Your task to perform on an android device: turn notification dots off Image 0: 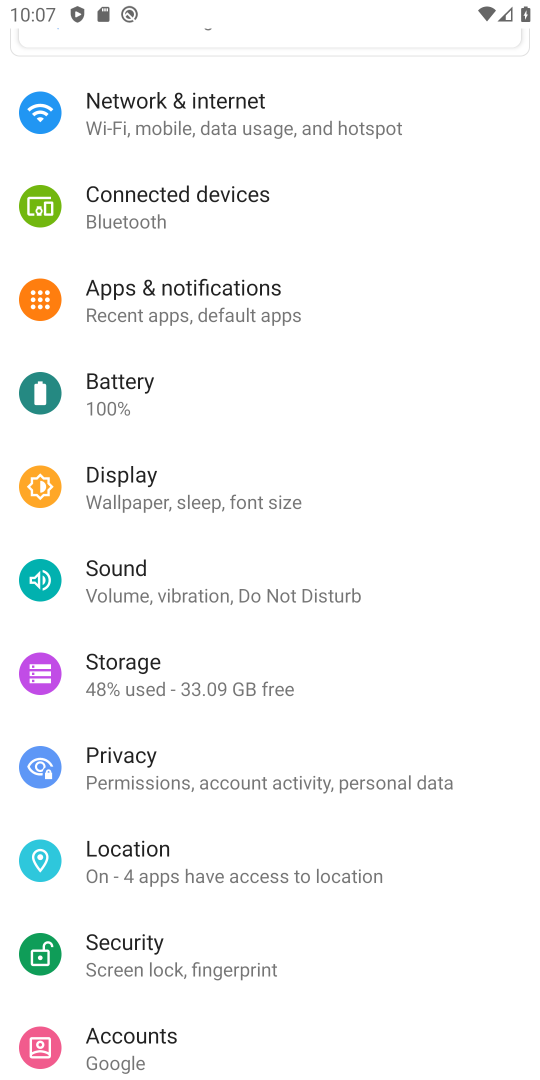
Step 0: drag from (273, 296) to (276, 726)
Your task to perform on an android device: turn notification dots off Image 1: 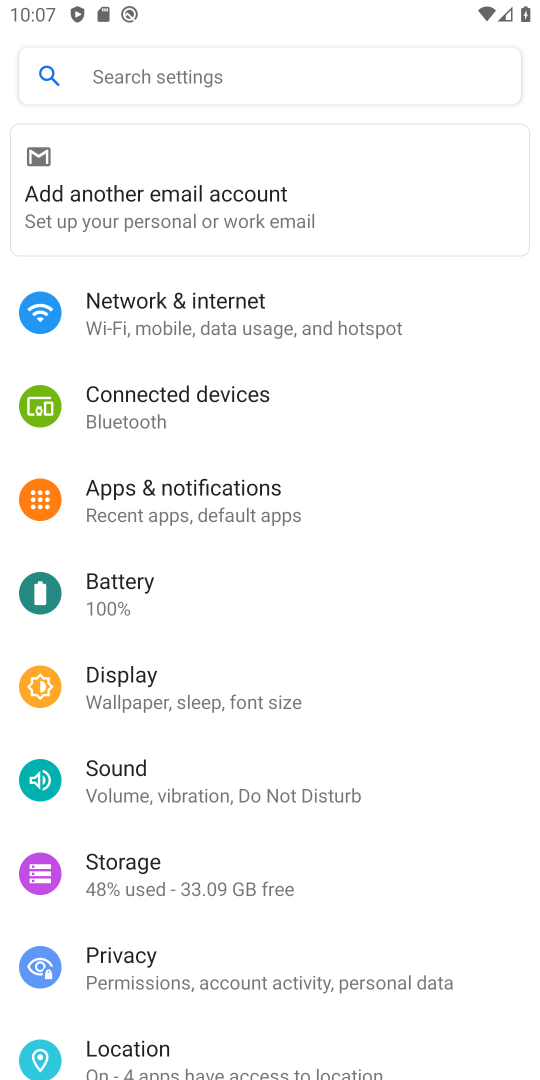
Step 1: click (189, 58)
Your task to perform on an android device: turn notification dots off Image 2: 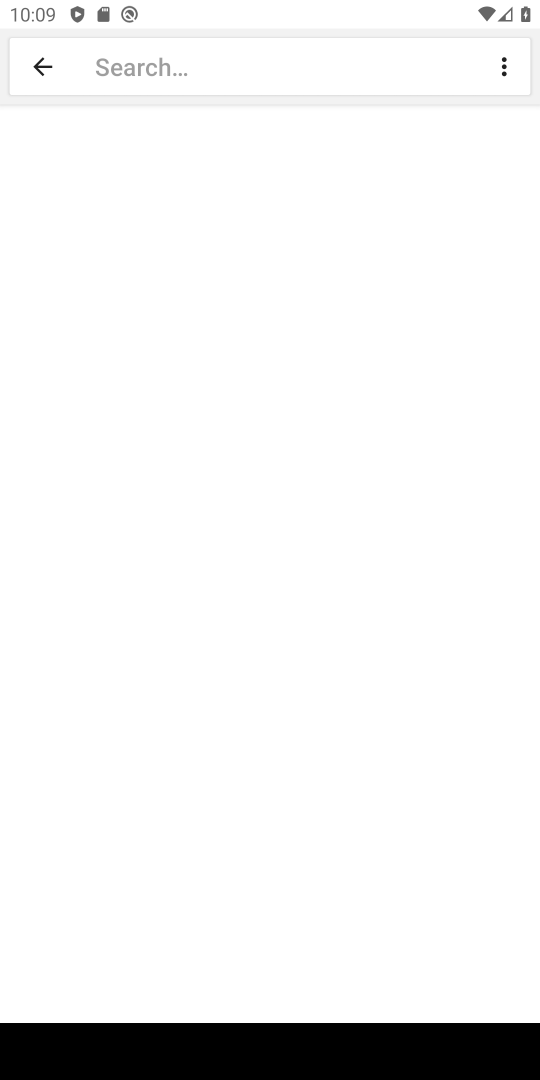
Step 2: click (213, 59)
Your task to perform on an android device: turn notification dots off Image 3: 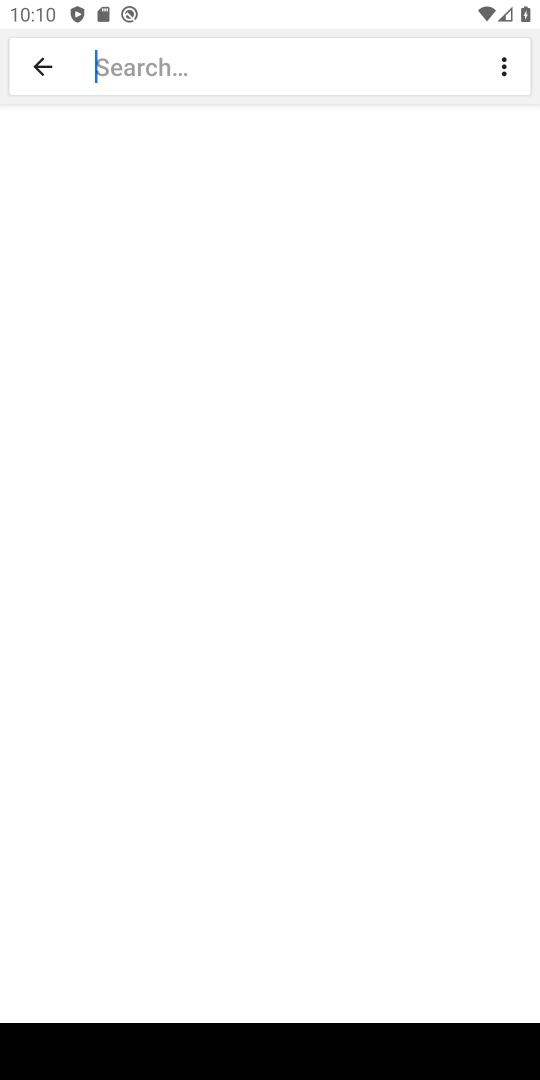
Step 3: type "notification dots  "
Your task to perform on an android device: turn notification dots off Image 4: 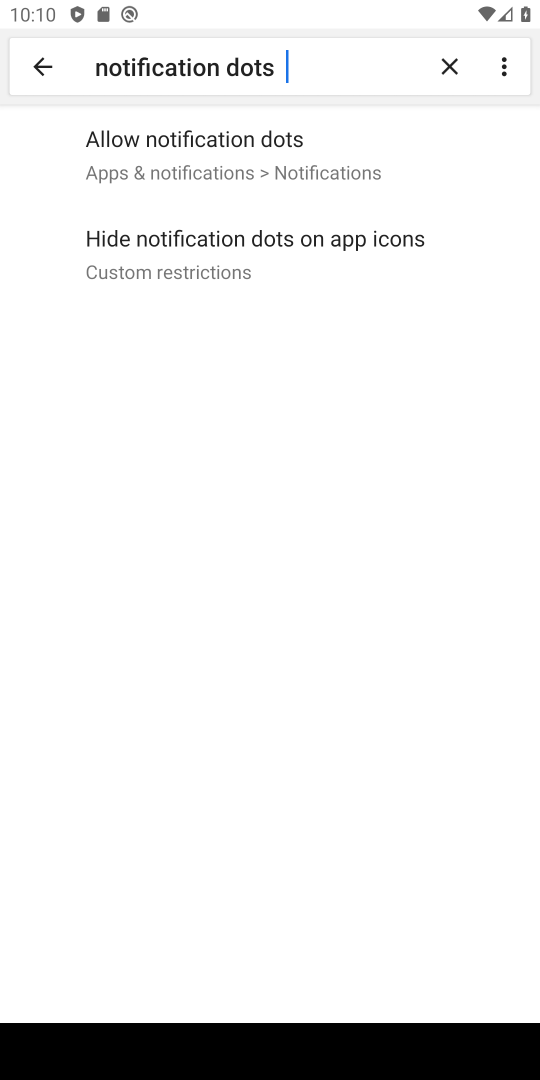
Step 4: click (195, 153)
Your task to perform on an android device: turn notification dots off Image 5: 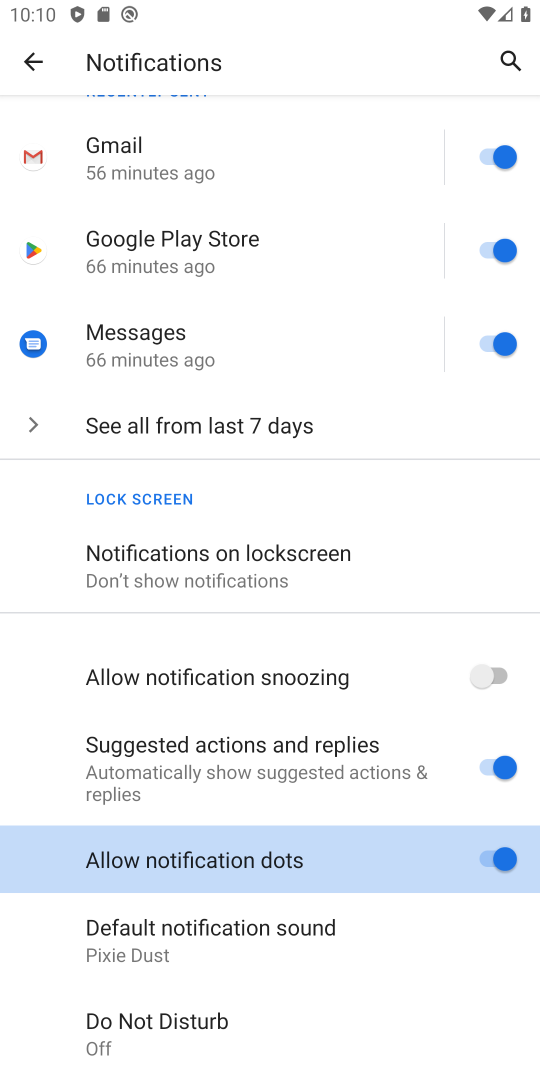
Step 5: click (502, 843)
Your task to perform on an android device: turn notification dots off Image 6: 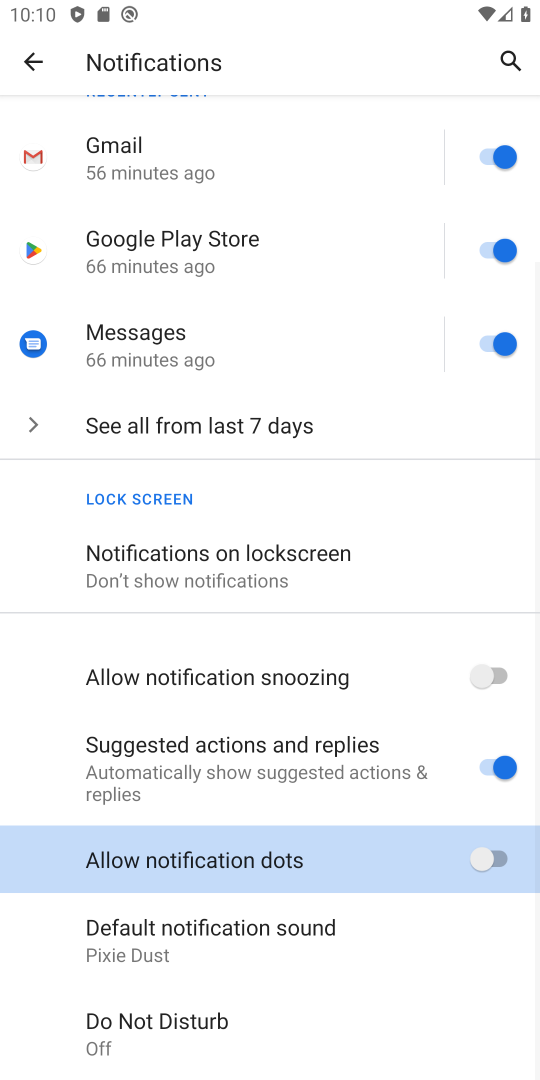
Step 6: task complete